Your task to perform on an android device: Open the Play Movies app and select the watchlist tab. Image 0: 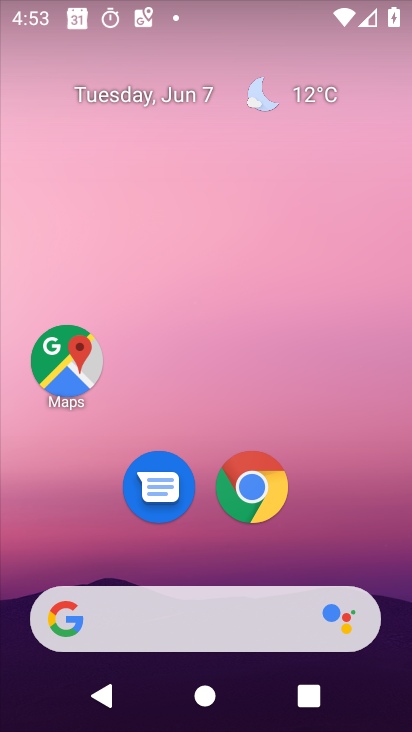
Step 0: drag from (177, 529) to (240, 21)
Your task to perform on an android device: Open the Play Movies app and select the watchlist tab. Image 1: 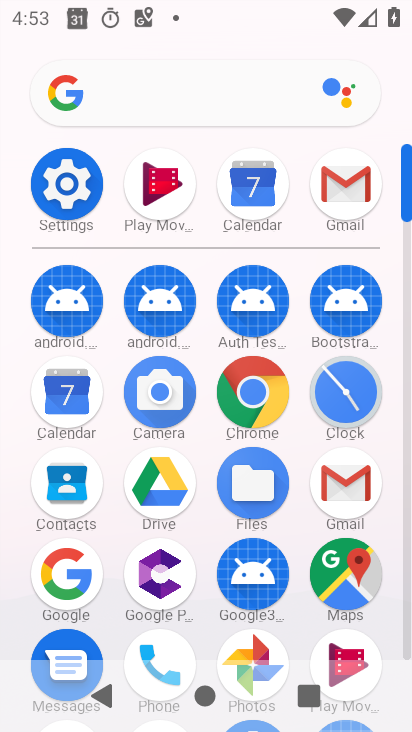
Step 1: click (338, 643)
Your task to perform on an android device: Open the Play Movies app and select the watchlist tab. Image 2: 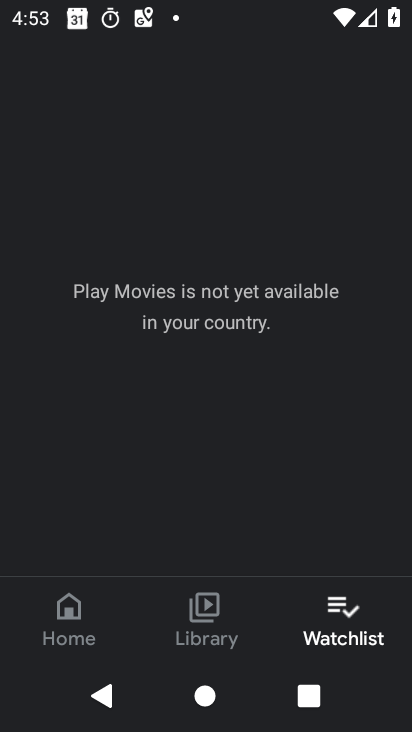
Step 2: click (327, 625)
Your task to perform on an android device: Open the Play Movies app and select the watchlist tab. Image 3: 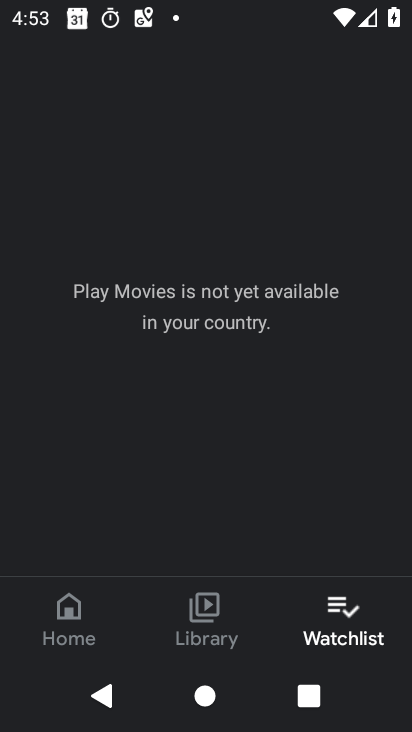
Step 3: task complete